Your task to perform on an android device: Go to battery settings Image 0: 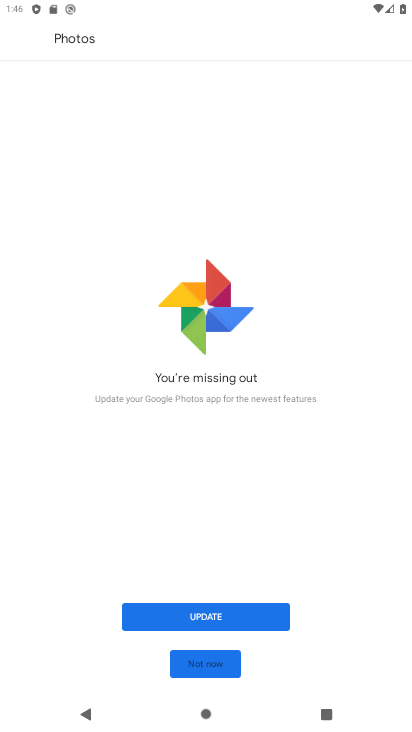
Step 0: press home button
Your task to perform on an android device: Go to battery settings Image 1: 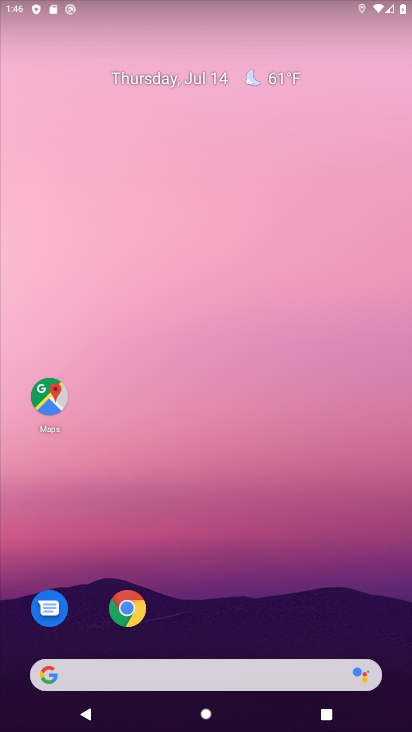
Step 1: drag from (184, 675) to (282, 285)
Your task to perform on an android device: Go to battery settings Image 2: 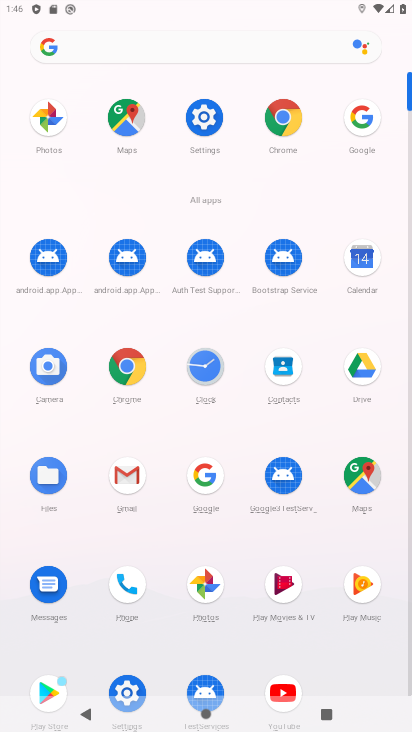
Step 2: click (204, 118)
Your task to perform on an android device: Go to battery settings Image 3: 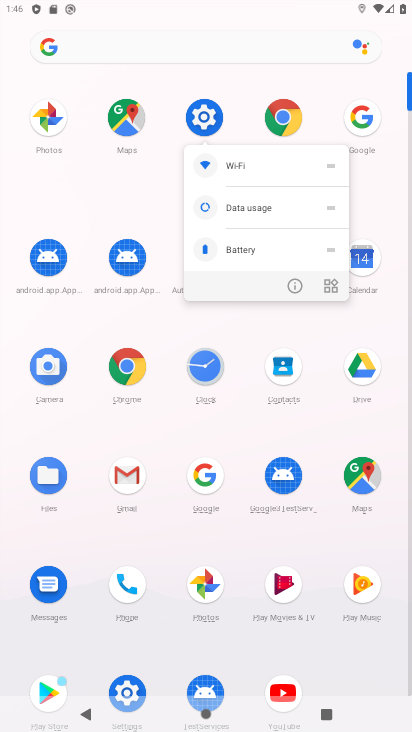
Step 3: click (204, 118)
Your task to perform on an android device: Go to battery settings Image 4: 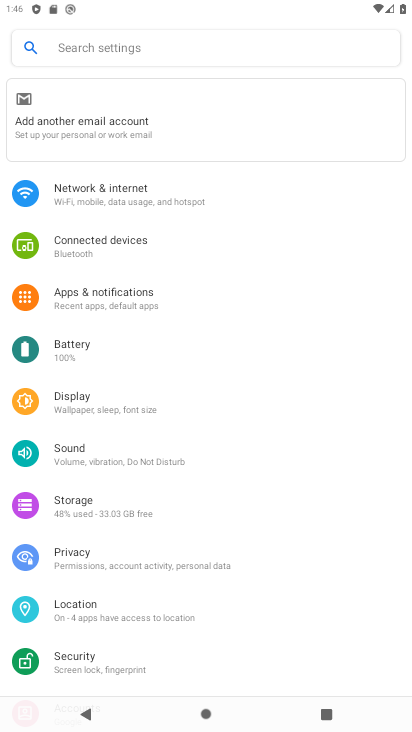
Step 4: click (61, 346)
Your task to perform on an android device: Go to battery settings Image 5: 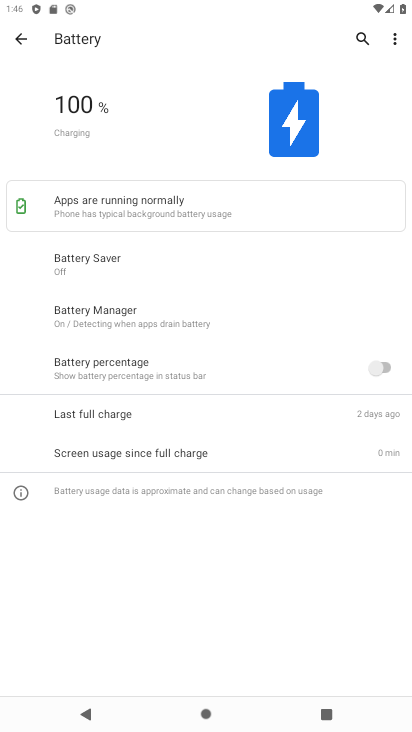
Step 5: task complete